Your task to perform on an android device: uninstall "VLC for Android" Image 0: 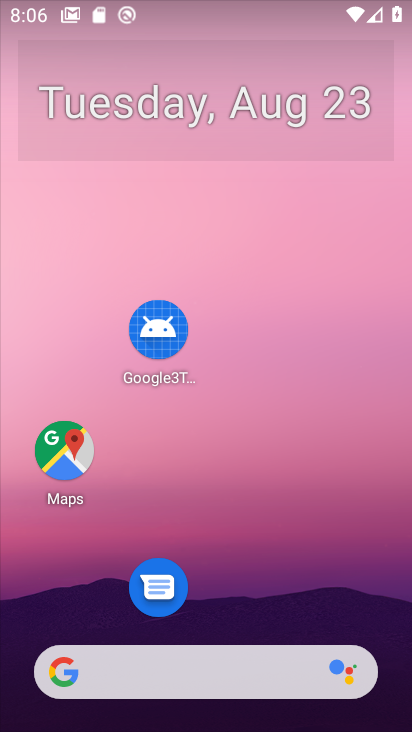
Step 0: drag from (307, 189) to (346, 44)
Your task to perform on an android device: uninstall "VLC for Android" Image 1: 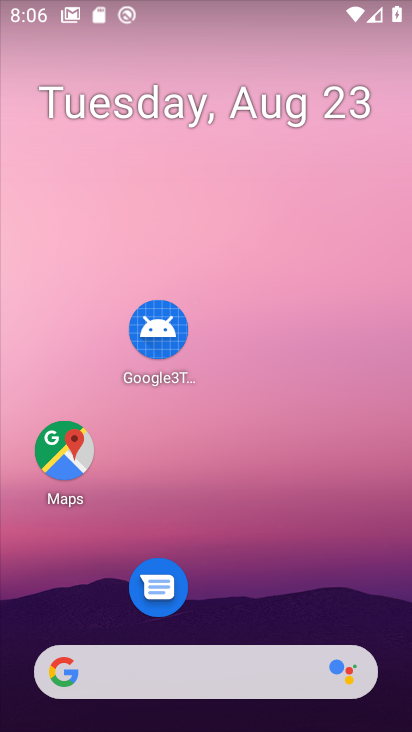
Step 1: drag from (273, 601) to (289, 10)
Your task to perform on an android device: uninstall "VLC for Android" Image 2: 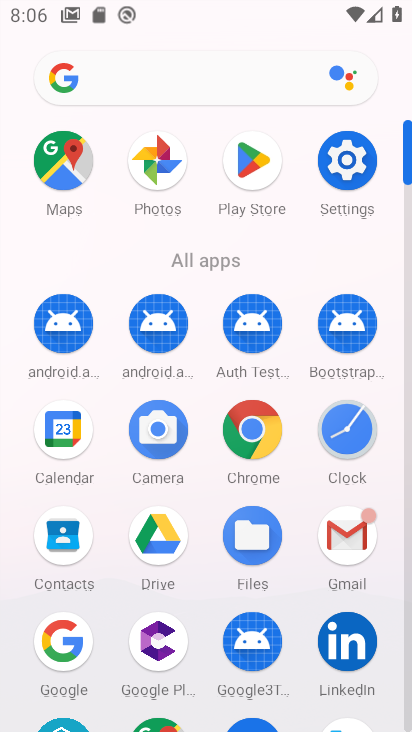
Step 2: click (256, 170)
Your task to perform on an android device: uninstall "VLC for Android" Image 3: 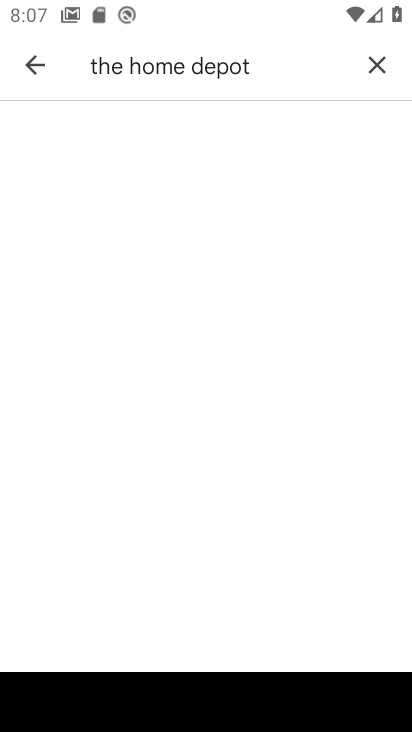
Step 3: click (368, 73)
Your task to perform on an android device: uninstall "VLC for Android" Image 4: 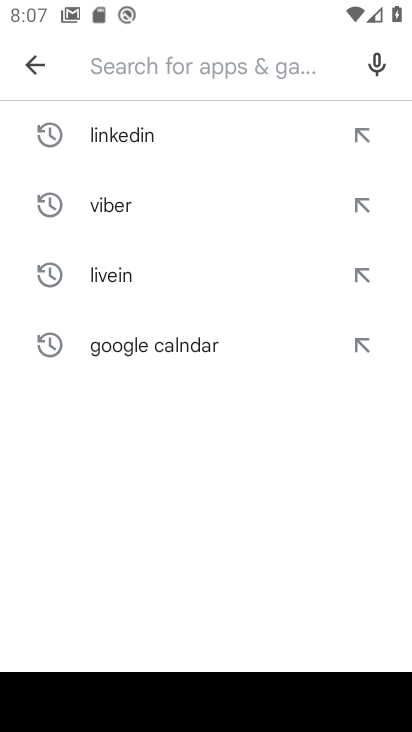
Step 4: type "vlc"
Your task to perform on an android device: uninstall "VLC for Android" Image 5: 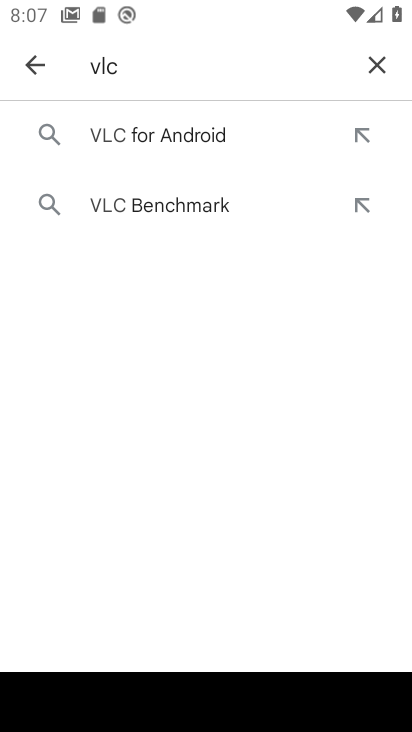
Step 5: click (133, 140)
Your task to perform on an android device: uninstall "VLC for Android" Image 6: 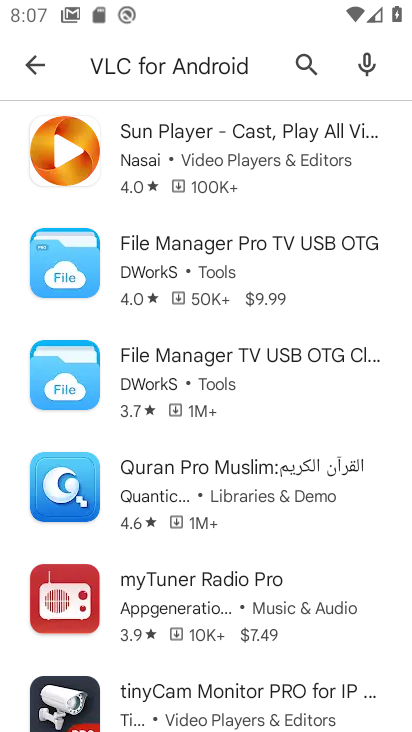
Step 6: task complete